Your task to perform on an android device: Do I have any events today? Image 0: 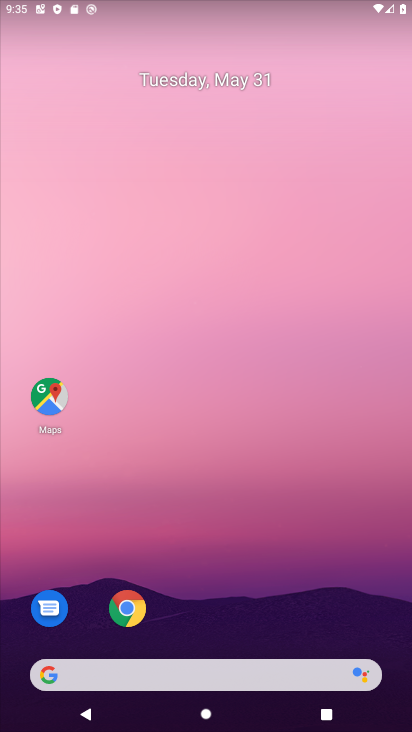
Step 0: drag from (253, 611) to (337, 0)
Your task to perform on an android device: Do I have any events today? Image 1: 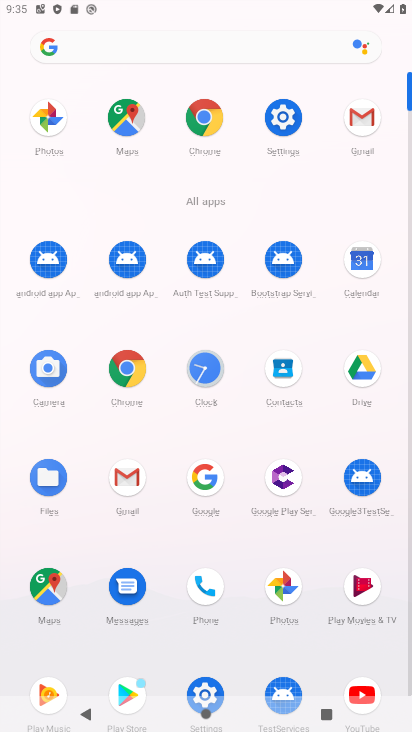
Step 1: click (357, 243)
Your task to perform on an android device: Do I have any events today? Image 2: 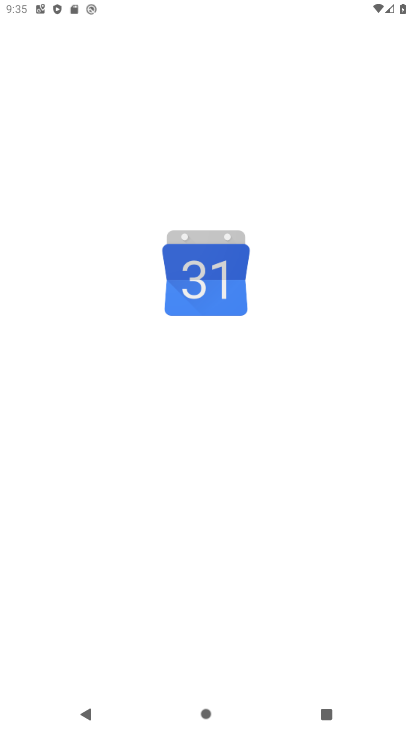
Step 2: task complete